Your task to perform on an android device: uninstall "Adobe Express: Graphic Design" Image 0: 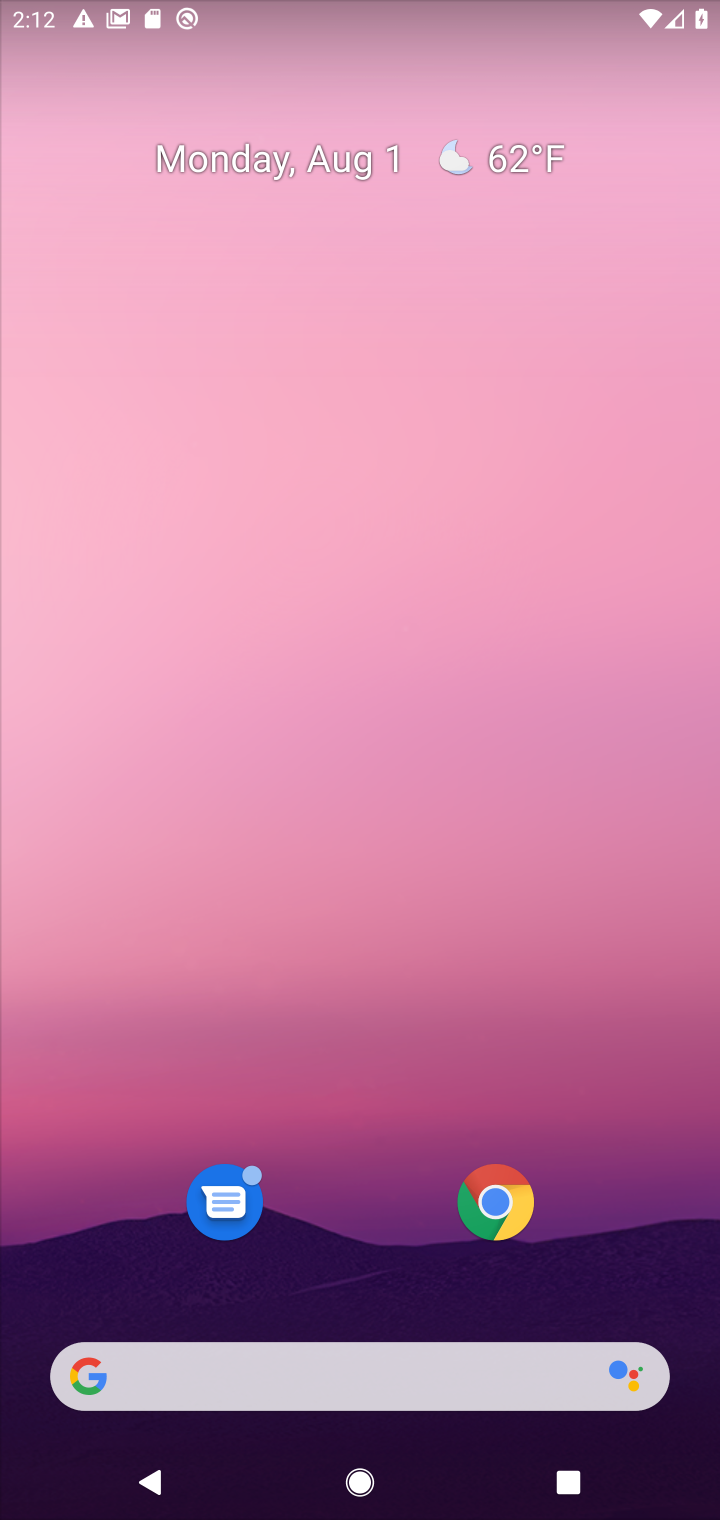
Step 0: drag from (336, 1220) to (240, 109)
Your task to perform on an android device: uninstall "Adobe Express: Graphic Design" Image 1: 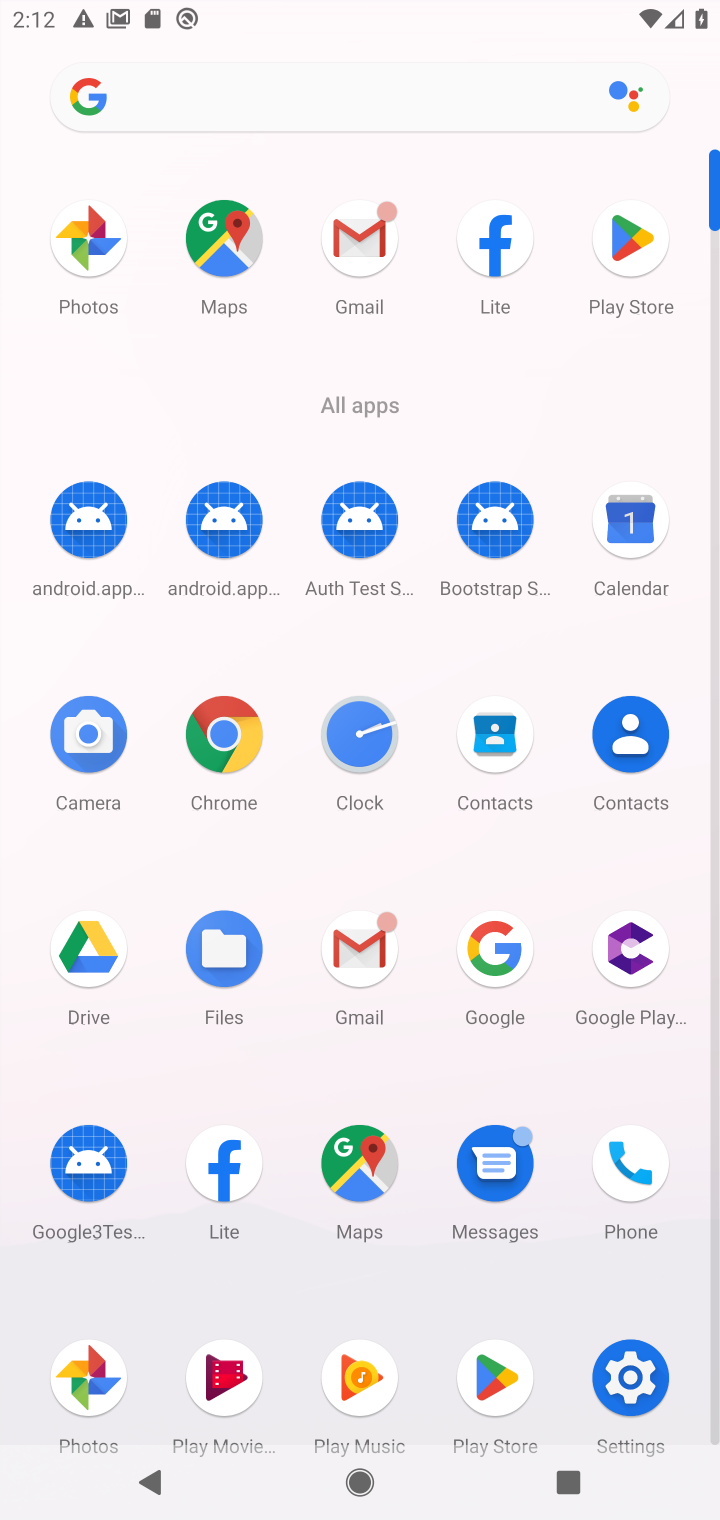
Step 1: click (626, 235)
Your task to perform on an android device: uninstall "Adobe Express: Graphic Design" Image 2: 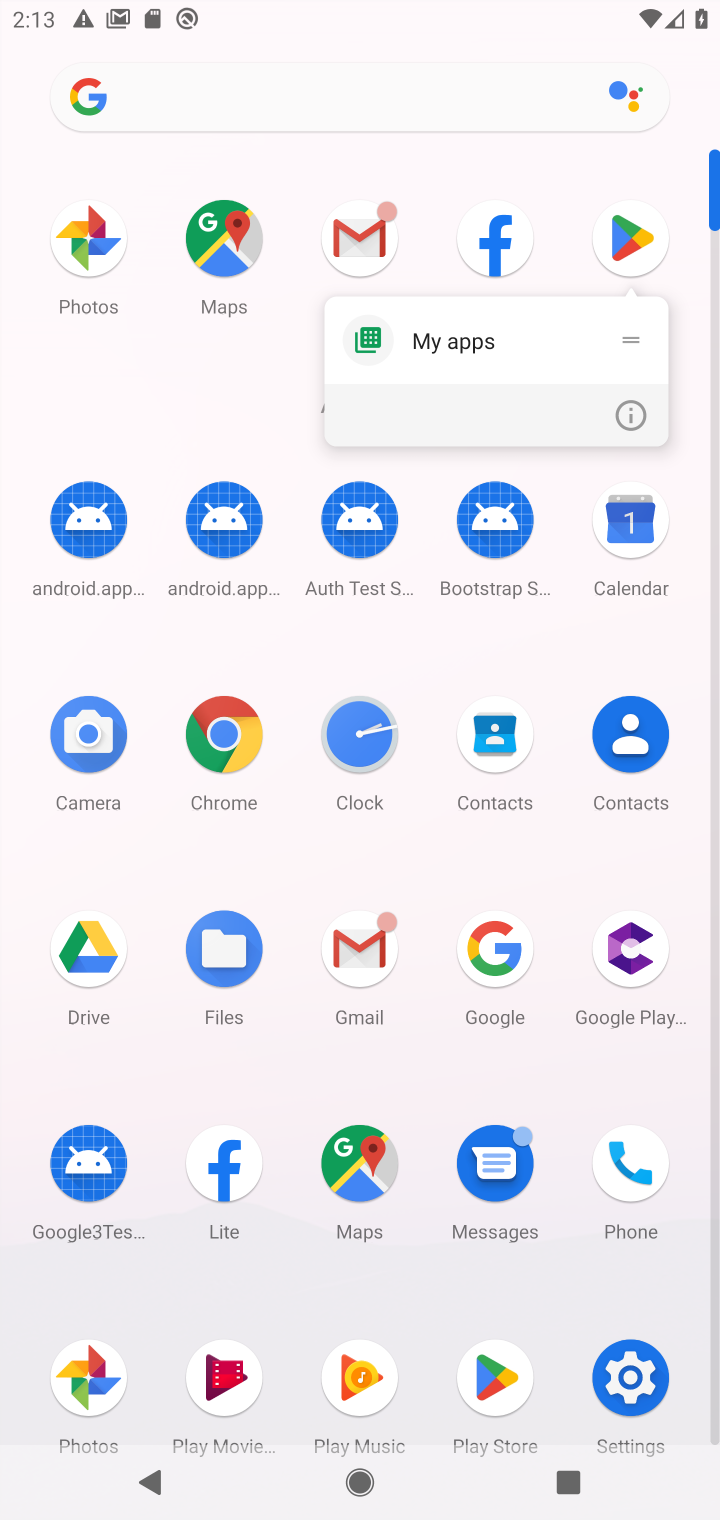
Step 2: click (617, 249)
Your task to perform on an android device: uninstall "Adobe Express: Graphic Design" Image 3: 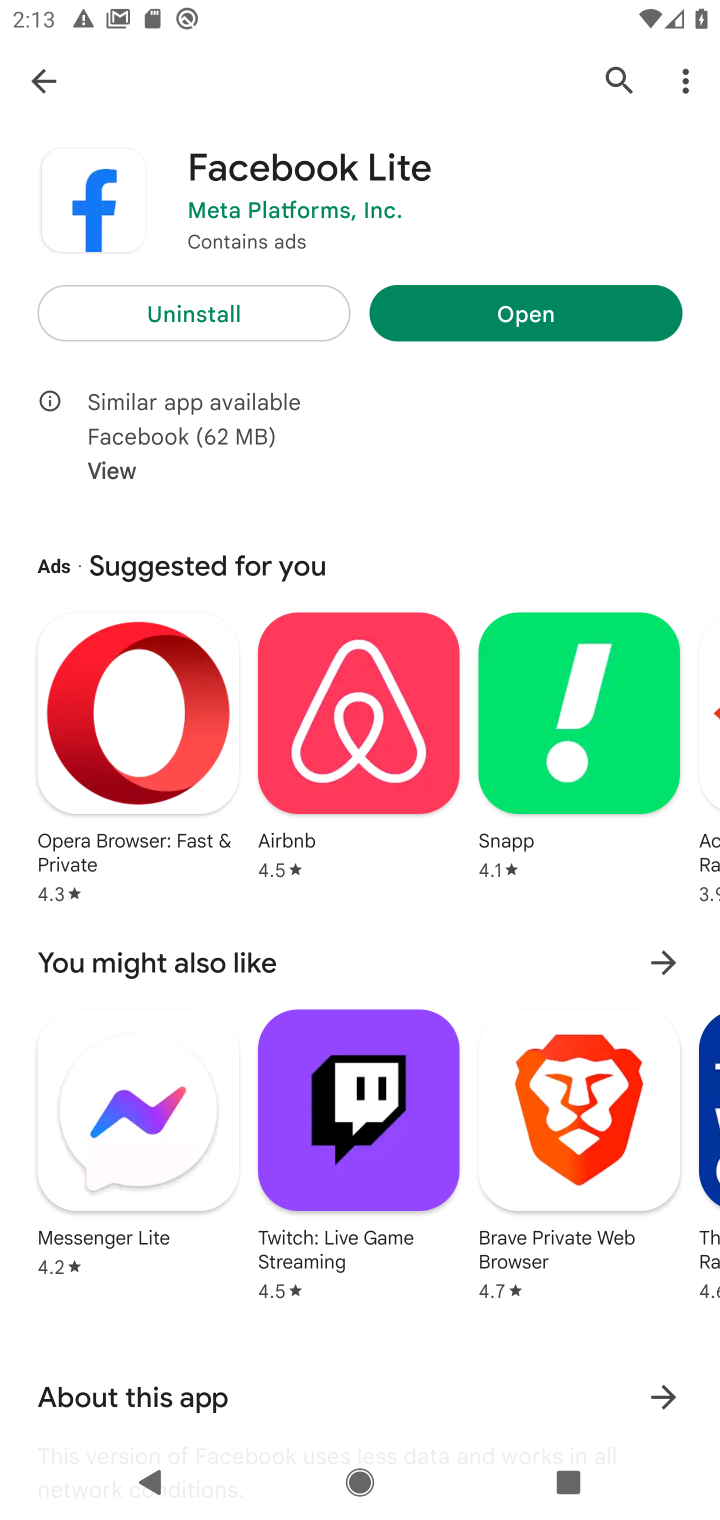
Step 3: click (652, 58)
Your task to perform on an android device: uninstall "Adobe Express: Graphic Design" Image 4: 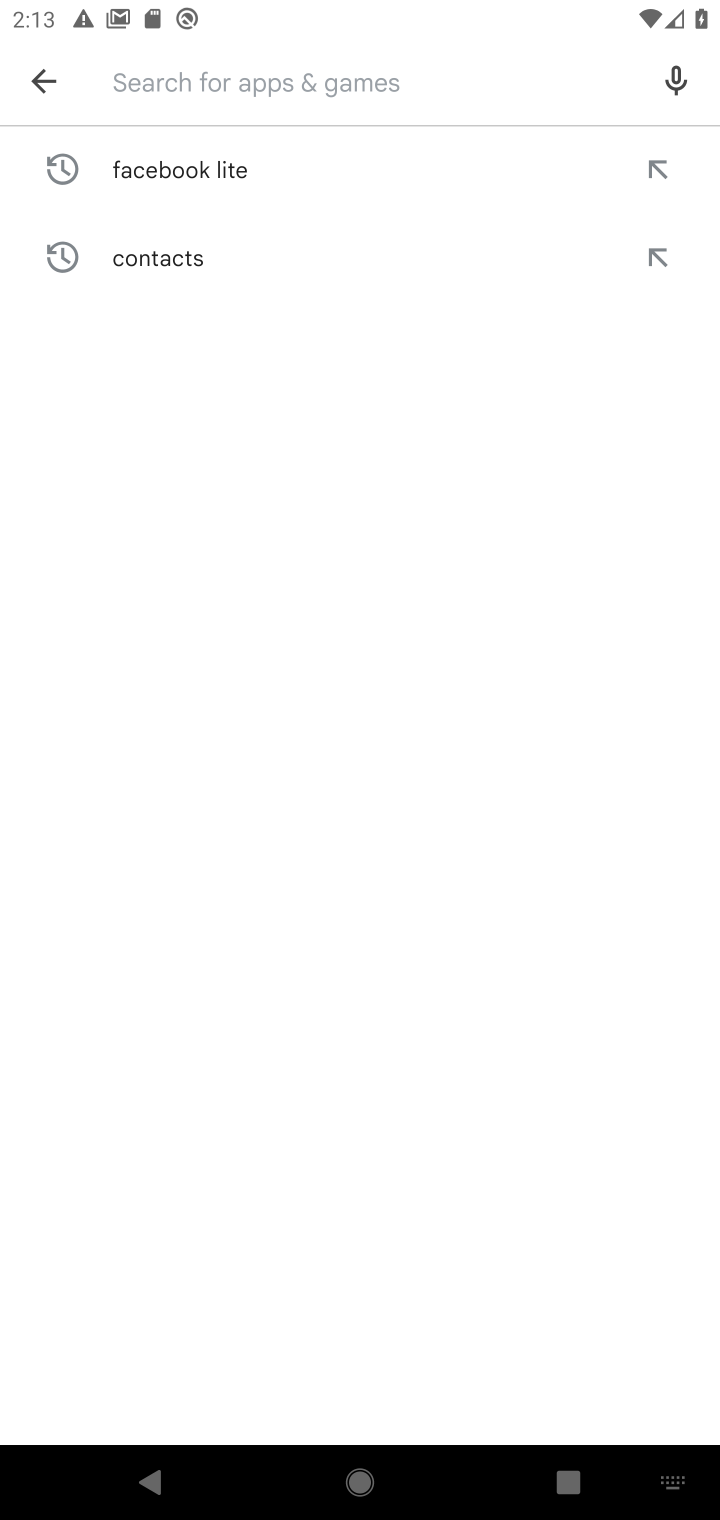
Step 4: type "adobe express: graphic design"
Your task to perform on an android device: uninstall "Adobe Express: Graphic Design" Image 5: 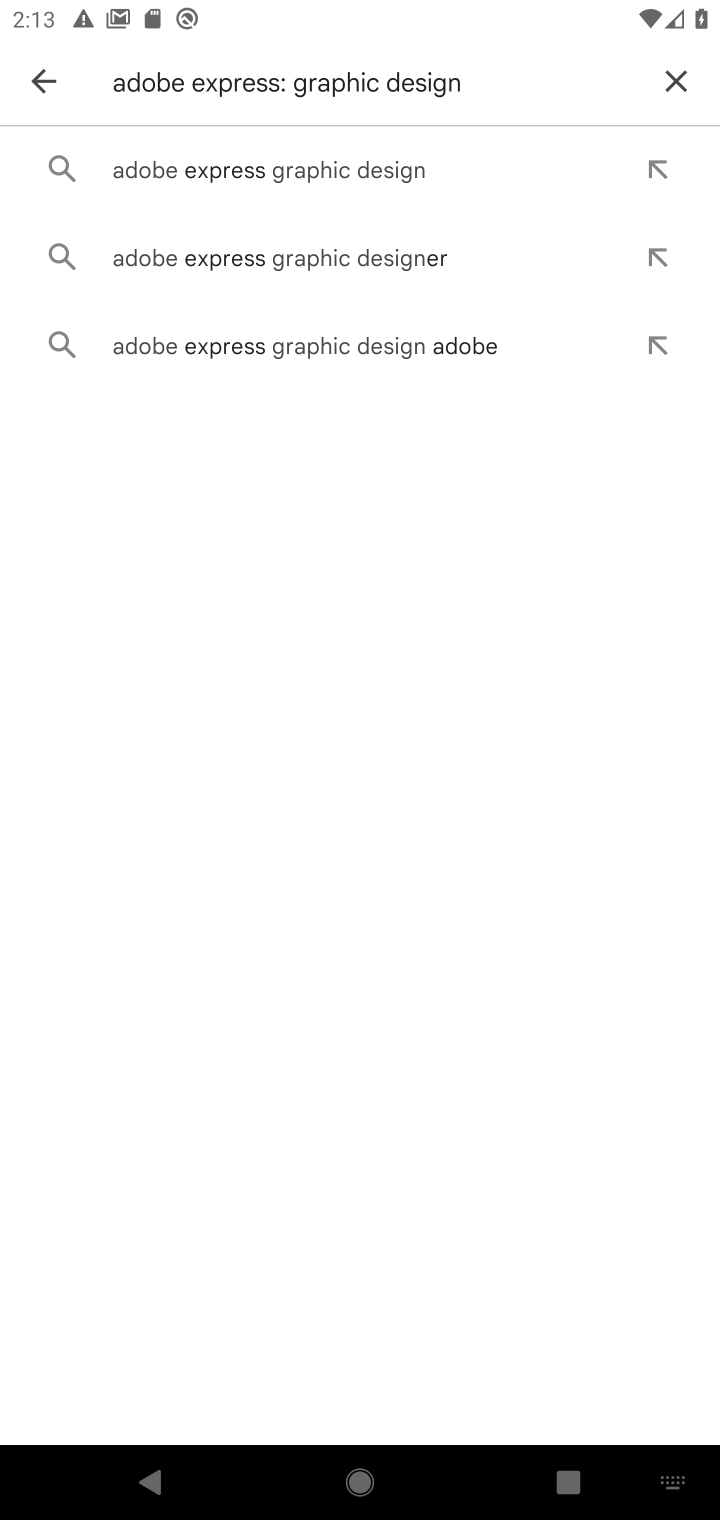
Step 5: click (402, 162)
Your task to perform on an android device: uninstall "Adobe Express: Graphic Design" Image 6: 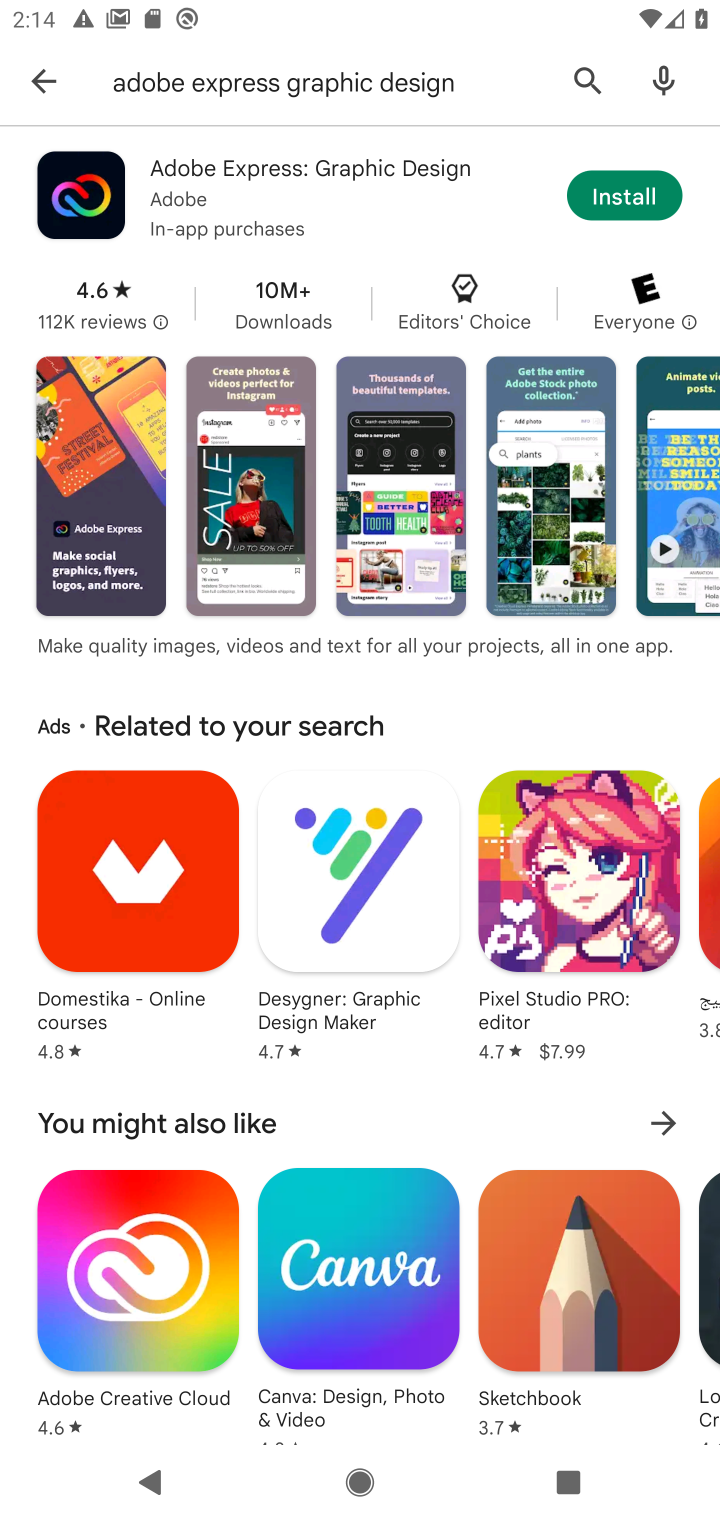
Step 6: click (327, 178)
Your task to perform on an android device: uninstall "Adobe Express: Graphic Design" Image 7: 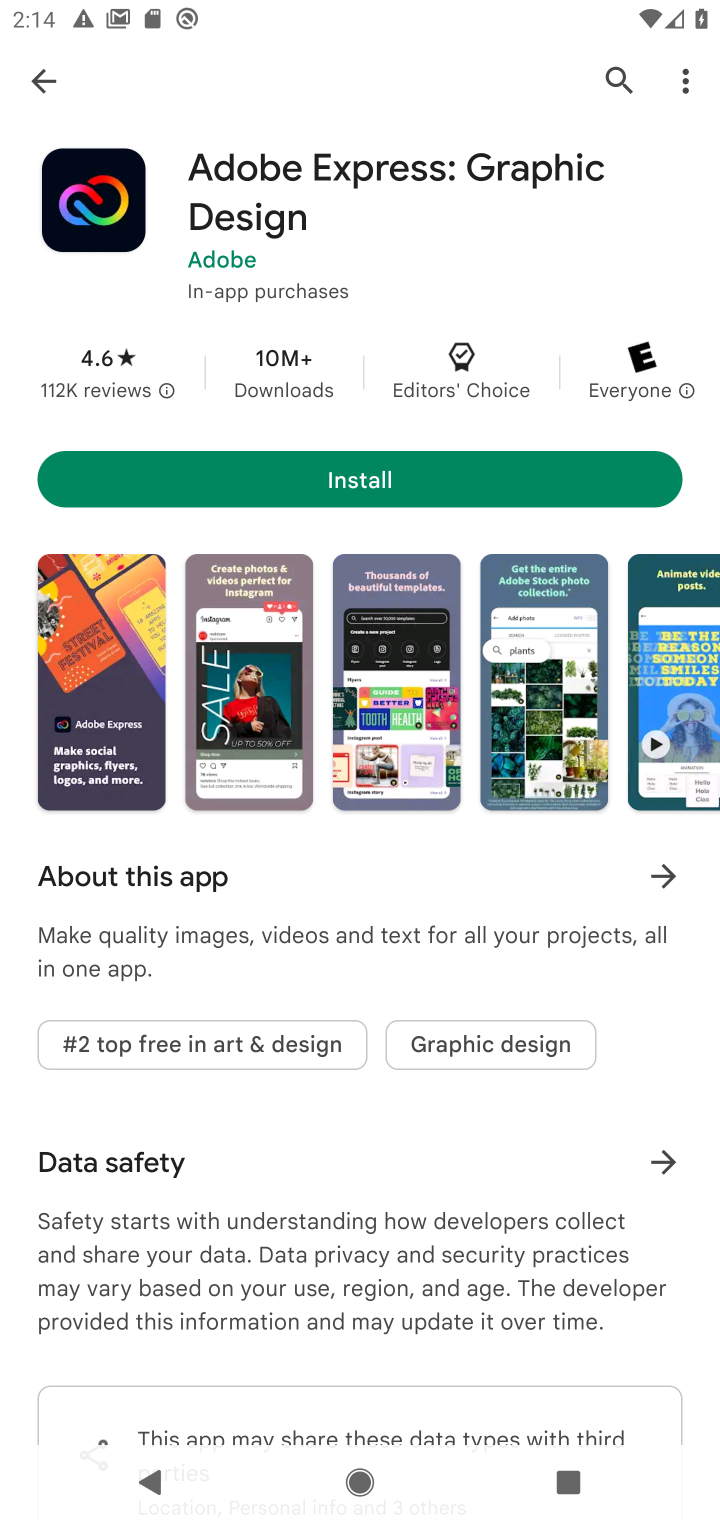
Step 7: task complete